Your task to perform on an android device: check out phone information Image 0: 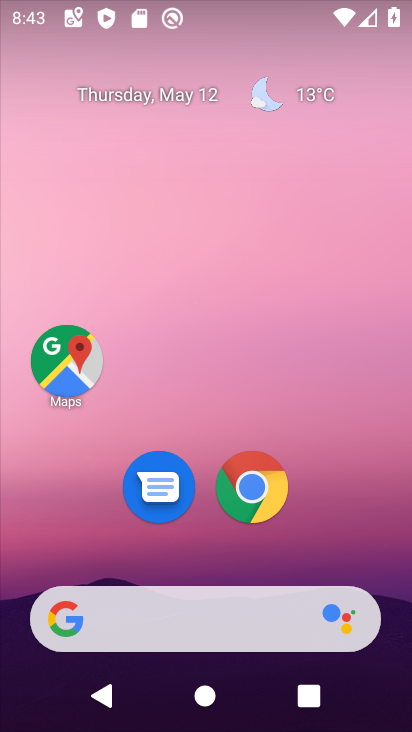
Step 0: drag from (341, 505) to (294, 8)
Your task to perform on an android device: check out phone information Image 1: 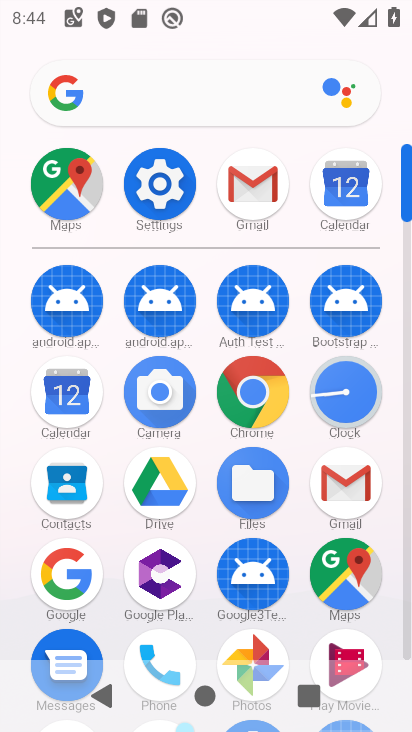
Step 1: click (146, 220)
Your task to perform on an android device: check out phone information Image 2: 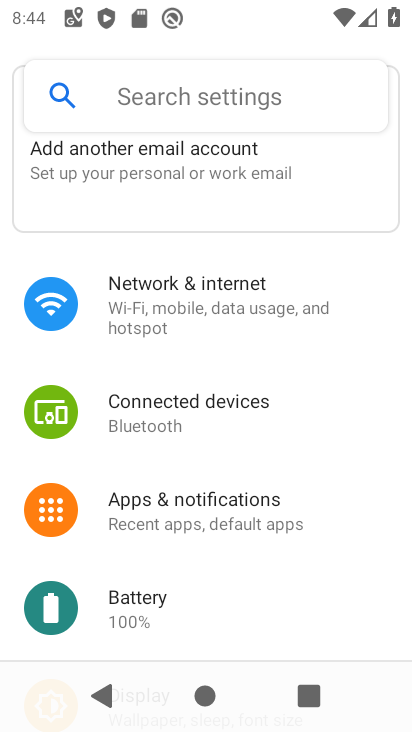
Step 2: drag from (227, 559) to (170, 11)
Your task to perform on an android device: check out phone information Image 3: 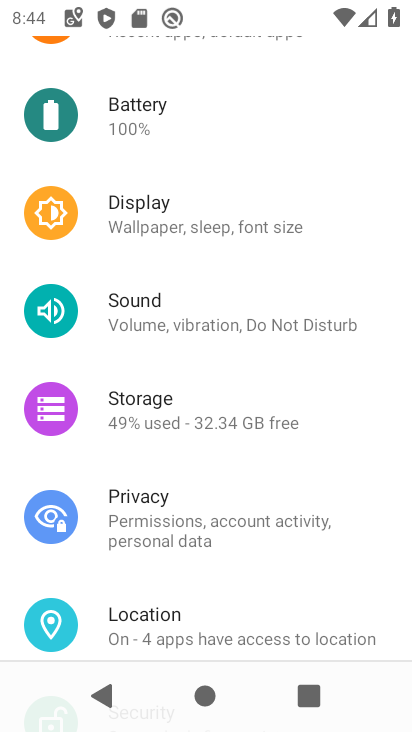
Step 3: drag from (249, 552) to (241, 15)
Your task to perform on an android device: check out phone information Image 4: 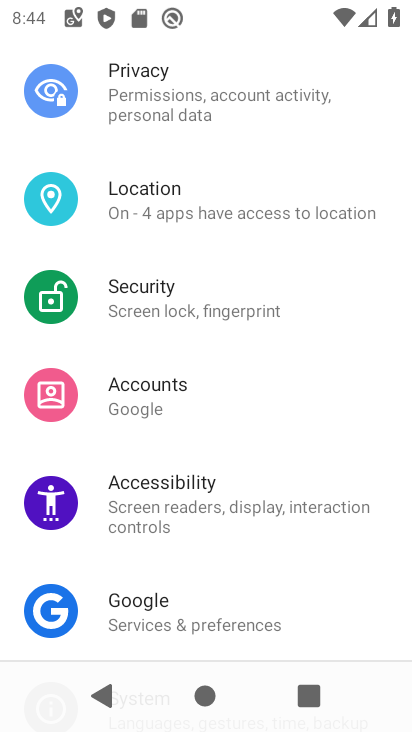
Step 4: drag from (237, 562) to (234, 149)
Your task to perform on an android device: check out phone information Image 5: 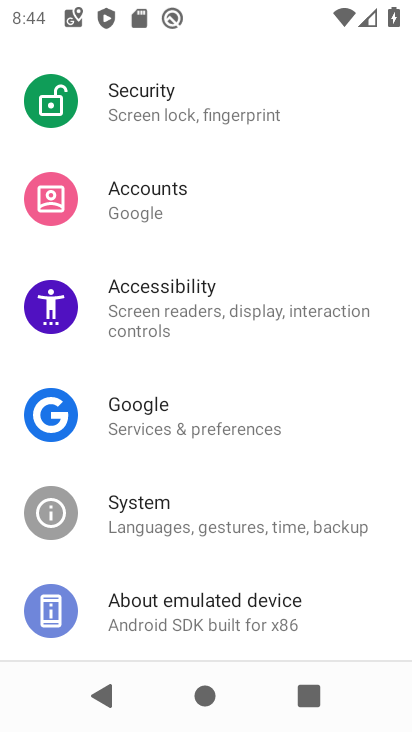
Step 5: click (191, 620)
Your task to perform on an android device: check out phone information Image 6: 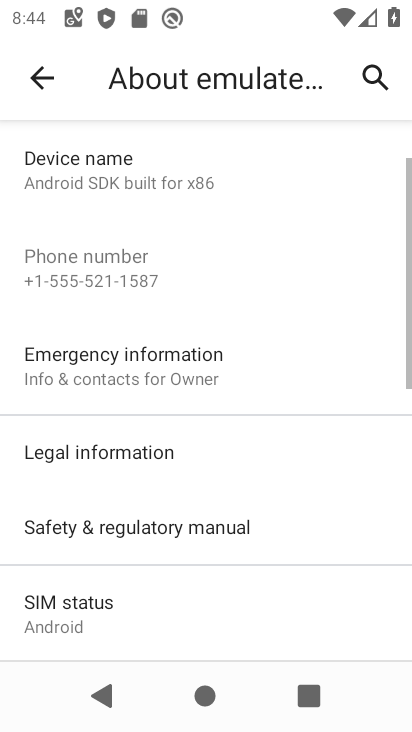
Step 6: task complete